Your task to perform on an android device: turn on airplane mode Image 0: 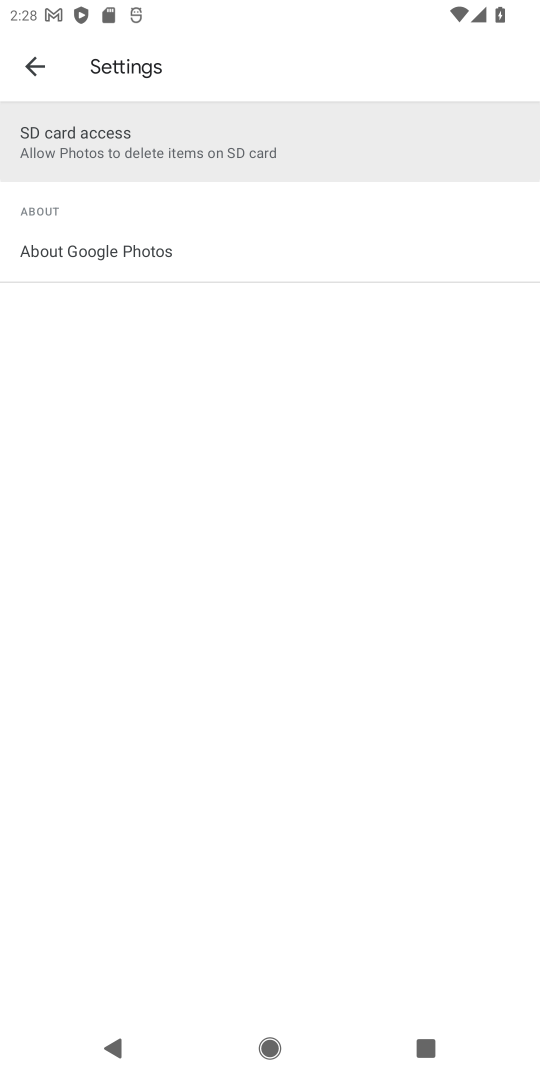
Step 0: press home button
Your task to perform on an android device: turn on airplane mode Image 1: 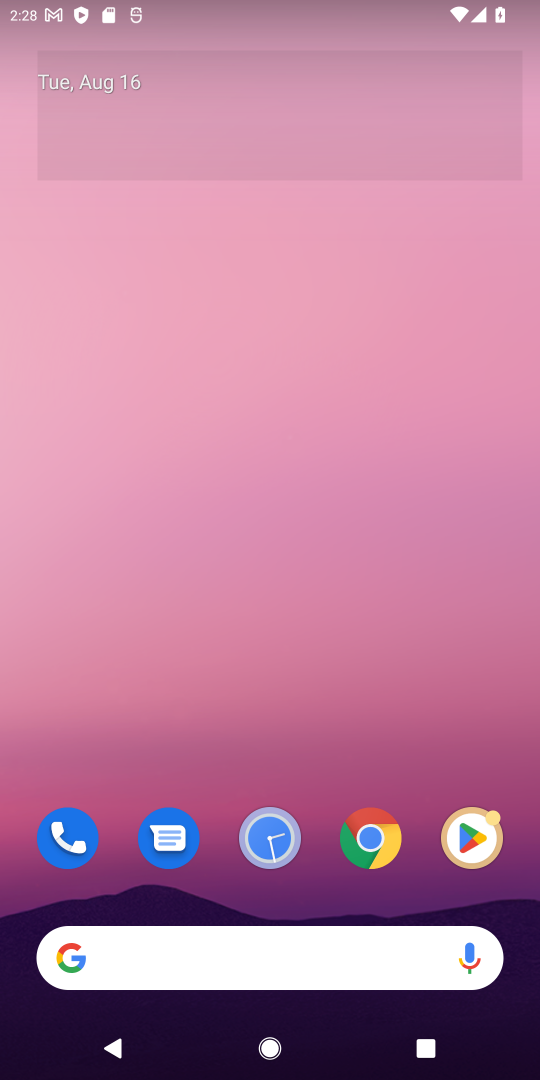
Step 1: drag from (292, 1) to (278, 506)
Your task to perform on an android device: turn on airplane mode Image 2: 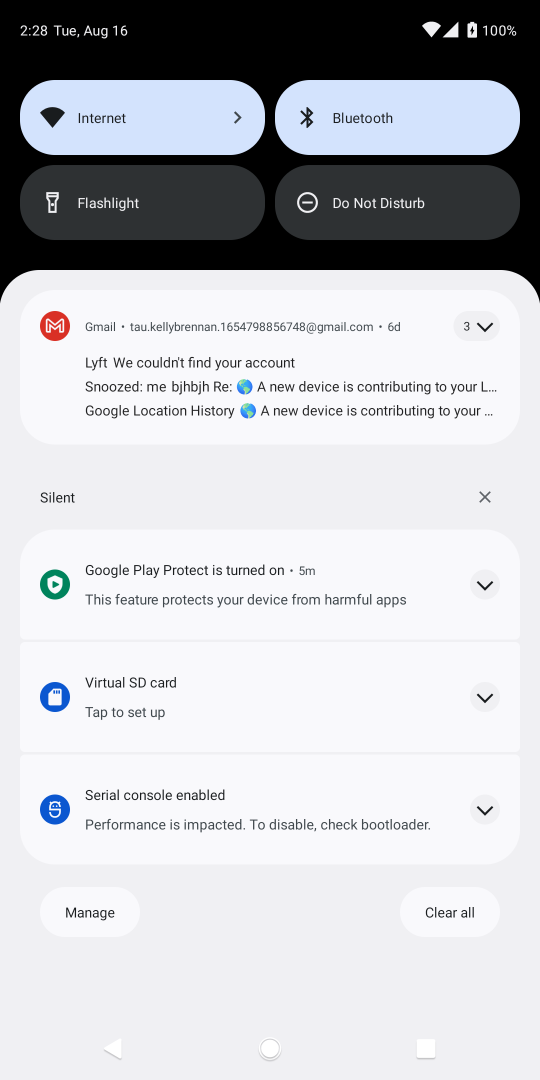
Step 2: drag from (258, 252) to (270, 907)
Your task to perform on an android device: turn on airplane mode Image 3: 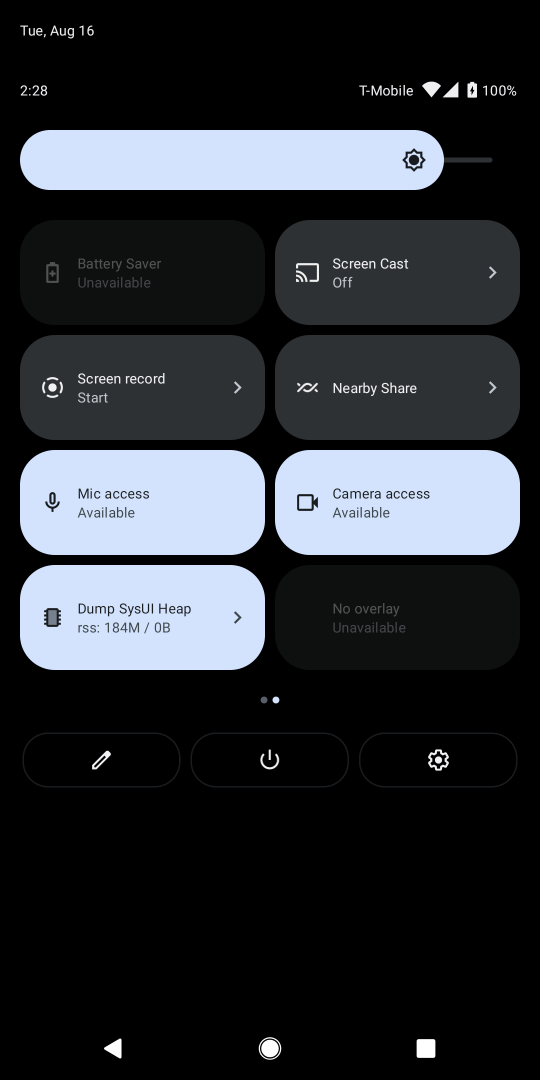
Step 3: drag from (163, 705) to (528, 716)
Your task to perform on an android device: turn on airplane mode Image 4: 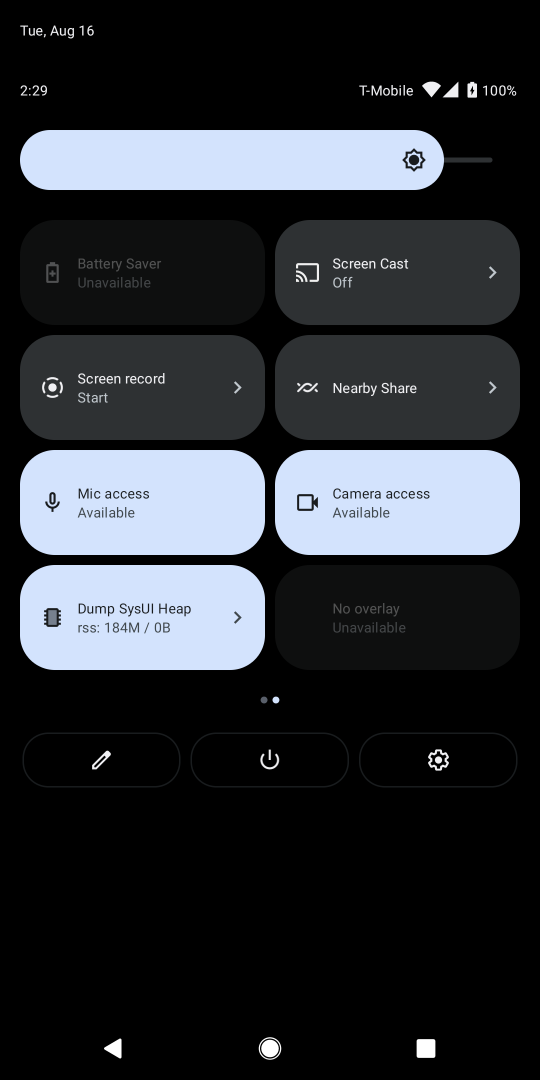
Step 4: drag from (218, 704) to (528, 718)
Your task to perform on an android device: turn on airplane mode Image 5: 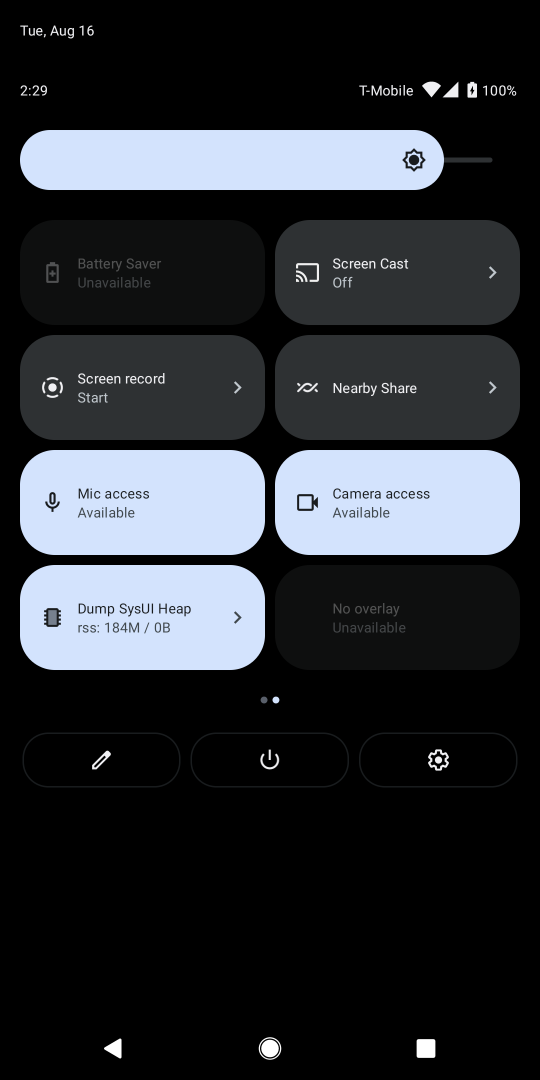
Step 5: drag from (404, 714) to (0, 720)
Your task to perform on an android device: turn on airplane mode Image 6: 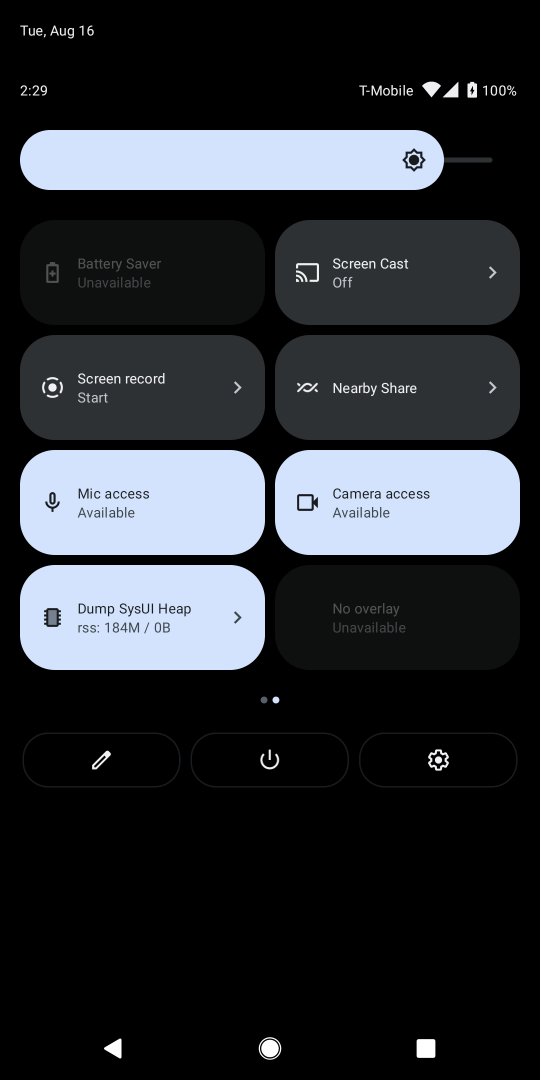
Step 6: drag from (92, 714) to (535, 862)
Your task to perform on an android device: turn on airplane mode Image 7: 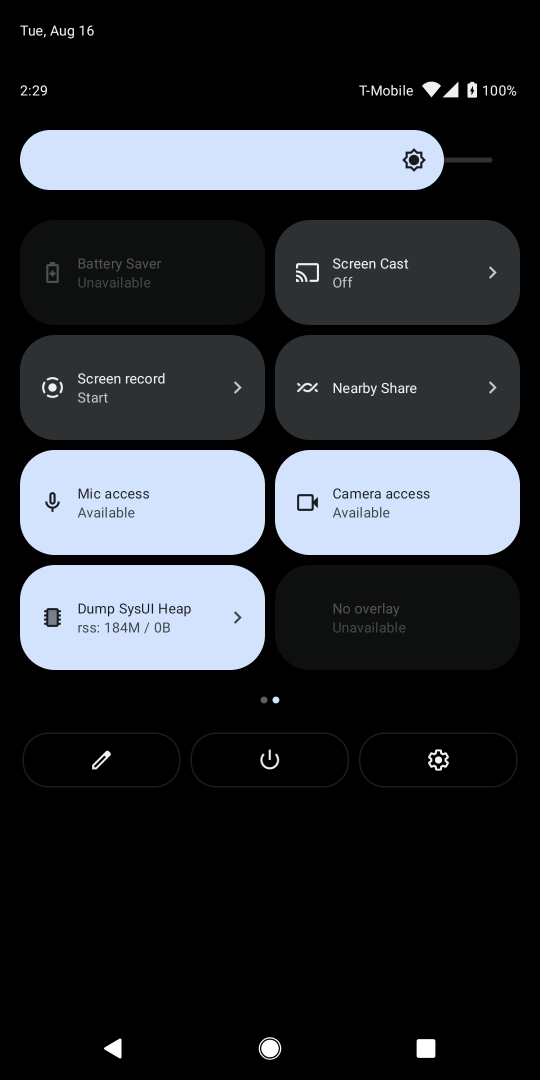
Step 7: drag from (150, 769) to (535, 897)
Your task to perform on an android device: turn on airplane mode Image 8: 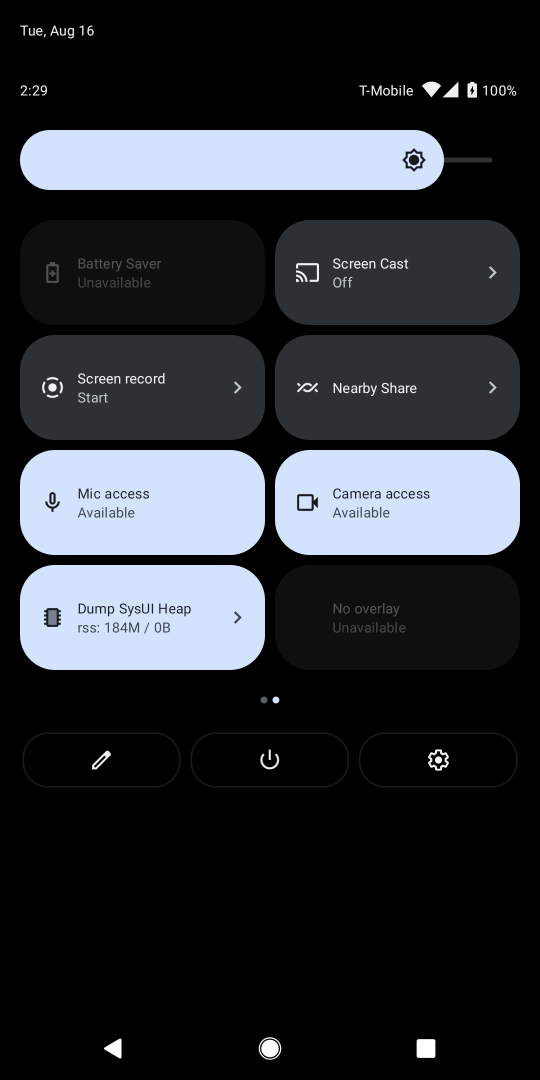
Step 8: click (410, 932)
Your task to perform on an android device: turn on airplane mode Image 9: 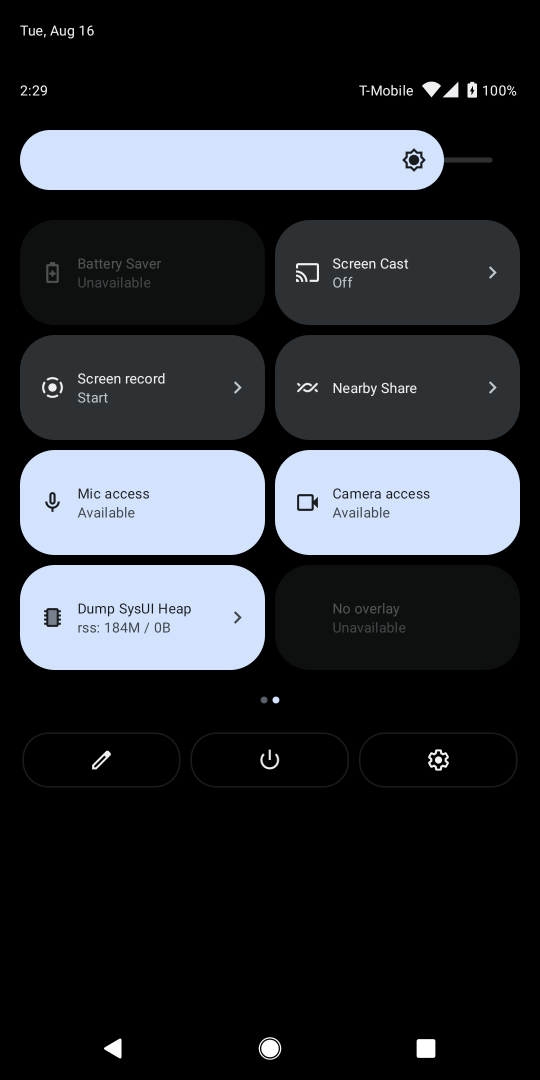
Step 9: drag from (139, 295) to (513, 847)
Your task to perform on an android device: turn on airplane mode Image 10: 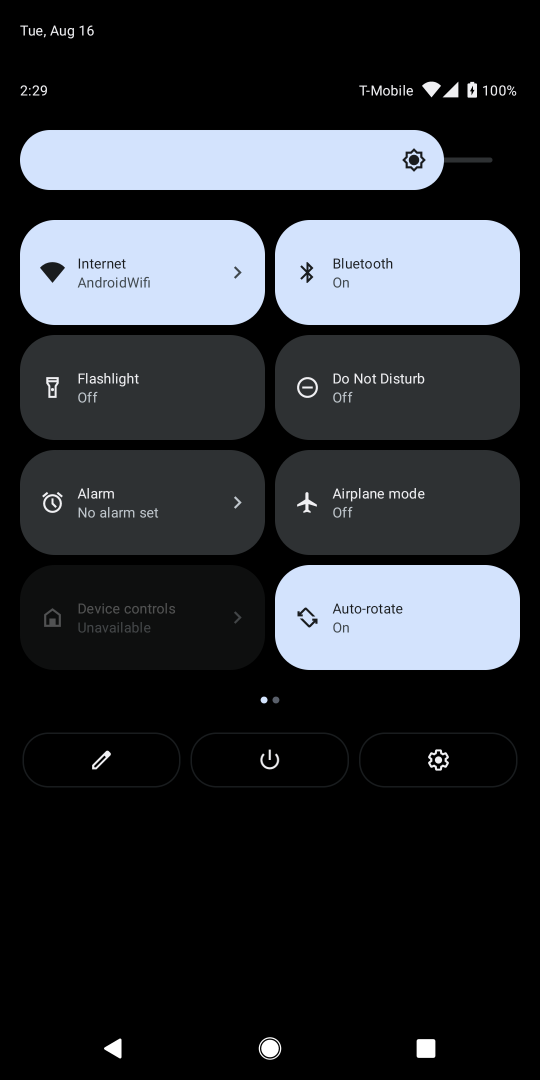
Step 10: click (356, 529)
Your task to perform on an android device: turn on airplane mode Image 11: 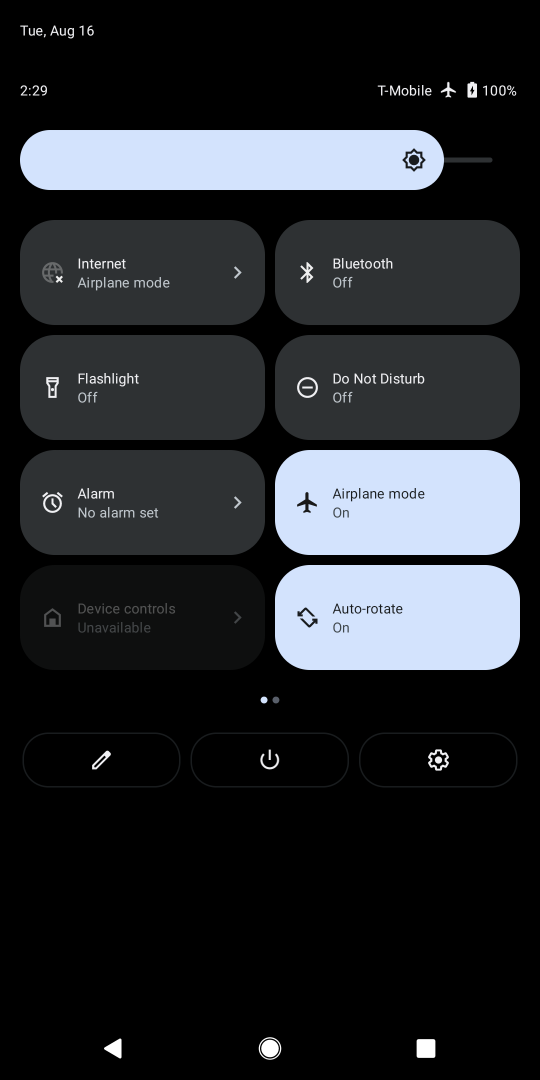
Step 11: task complete